Your task to perform on an android device: move a message to another label in the gmail app Image 0: 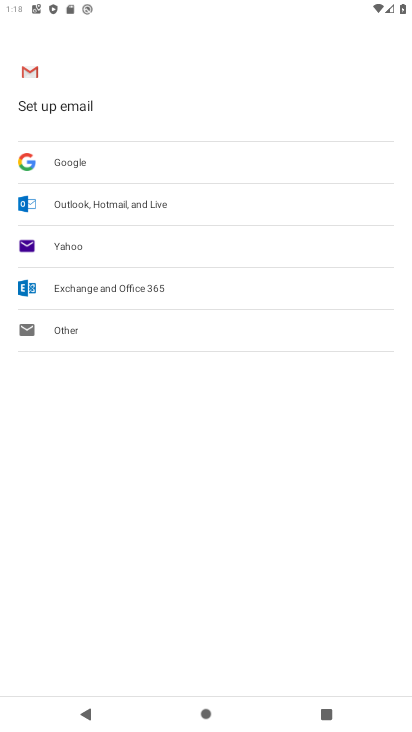
Step 0: press home button
Your task to perform on an android device: move a message to another label in the gmail app Image 1: 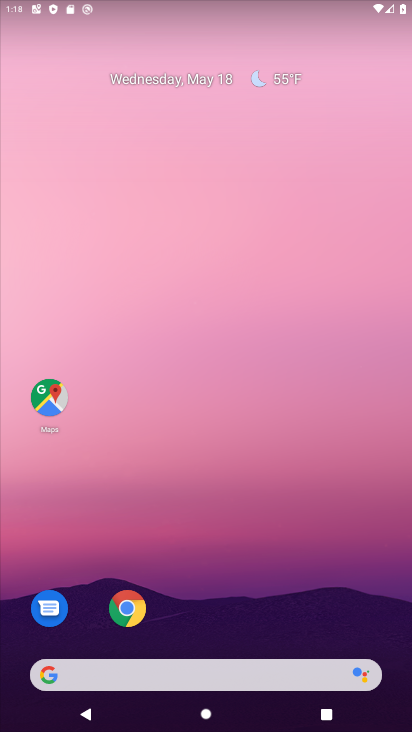
Step 1: drag from (203, 626) to (231, 166)
Your task to perform on an android device: move a message to another label in the gmail app Image 2: 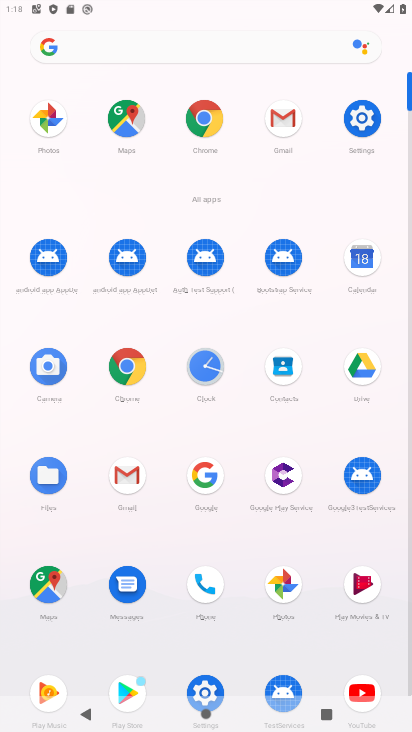
Step 2: click (283, 109)
Your task to perform on an android device: move a message to another label in the gmail app Image 3: 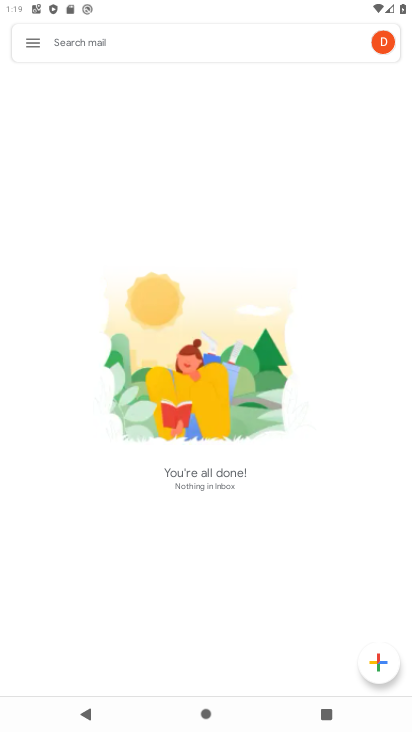
Step 3: click (24, 25)
Your task to perform on an android device: move a message to another label in the gmail app Image 4: 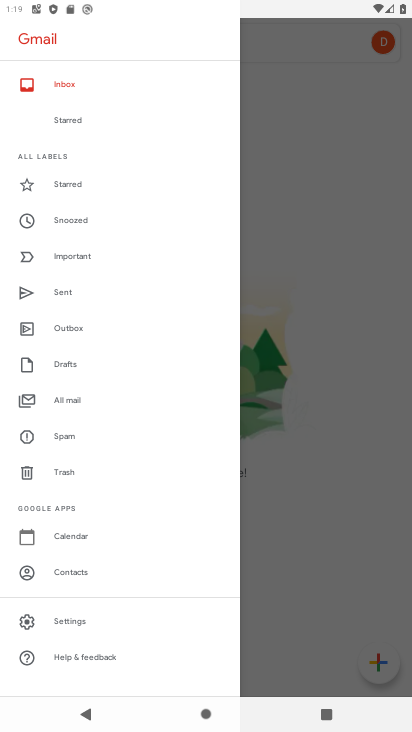
Step 4: click (69, 396)
Your task to perform on an android device: move a message to another label in the gmail app Image 5: 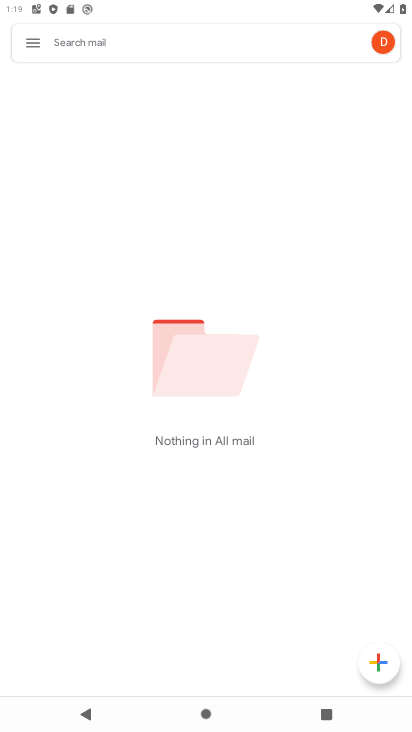
Step 5: task complete